Your task to perform on an android device: What is the news today? Image 0: 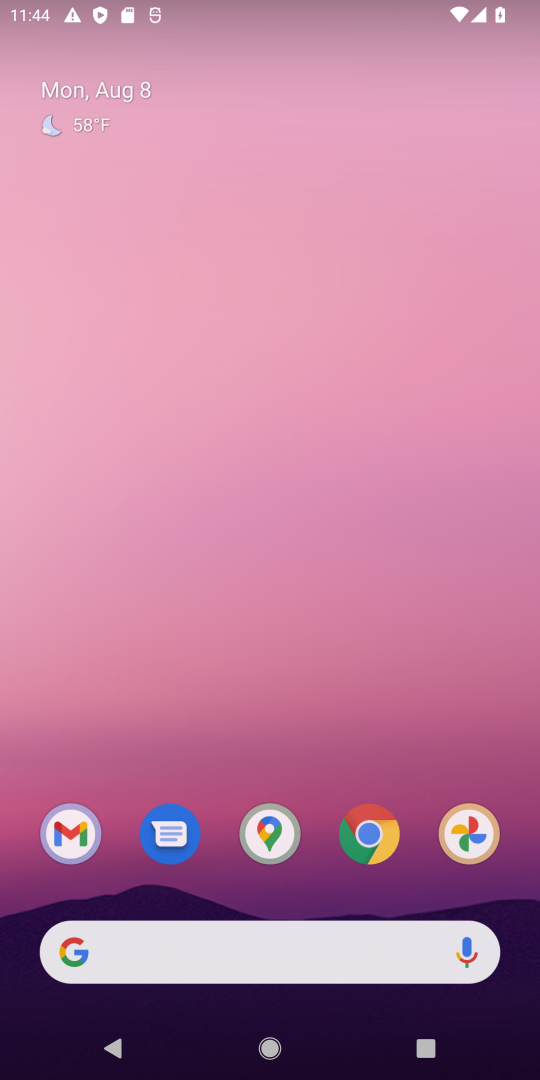
Step 0: press home button
Your task to perform on an android device: What is the news today? Image 1: 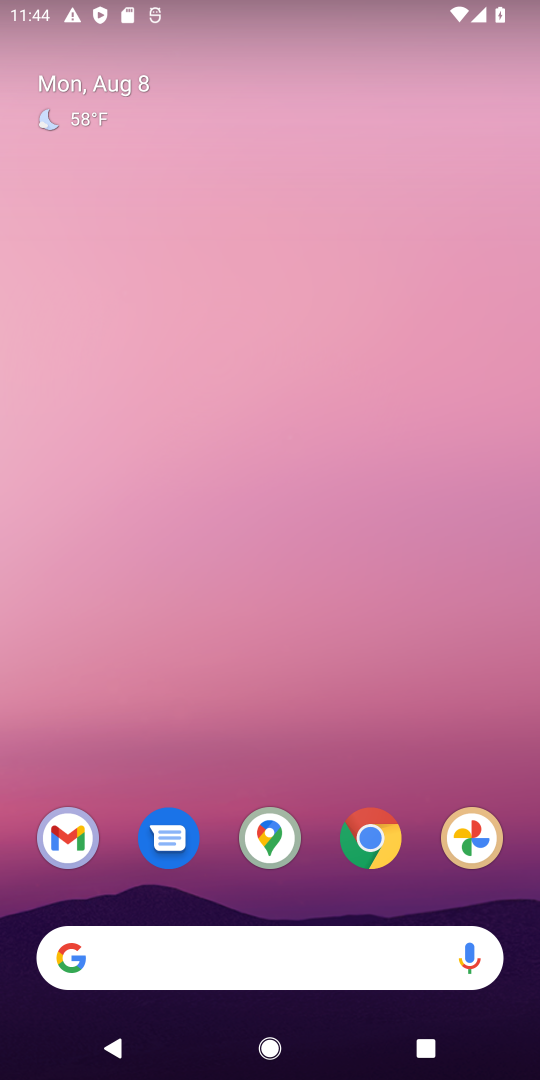
Step 1: click (64, 948)
Your task to perform on an android device: What is the news today? Image 2: 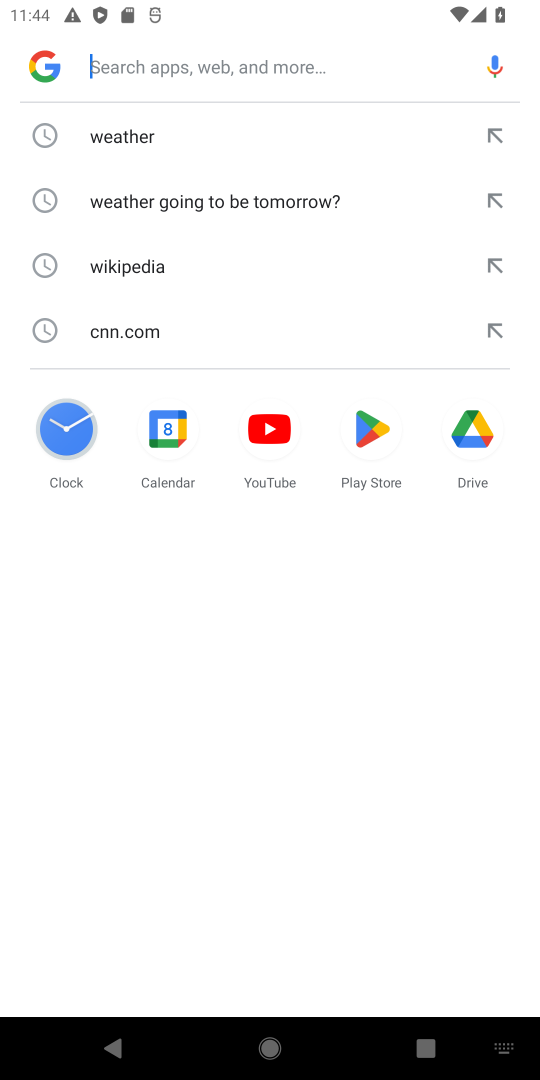
Step 2: type "news today?"
Your task to perform on an android device: What is the news today? Image 3: 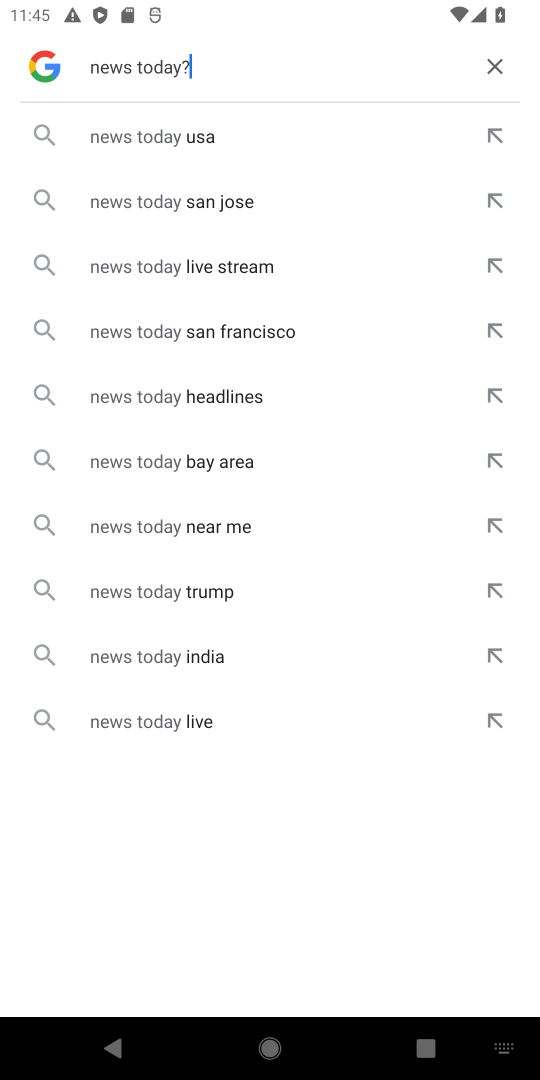
Step 3: press enter
Your task to perform on an android device: What is the news today? Image 4: 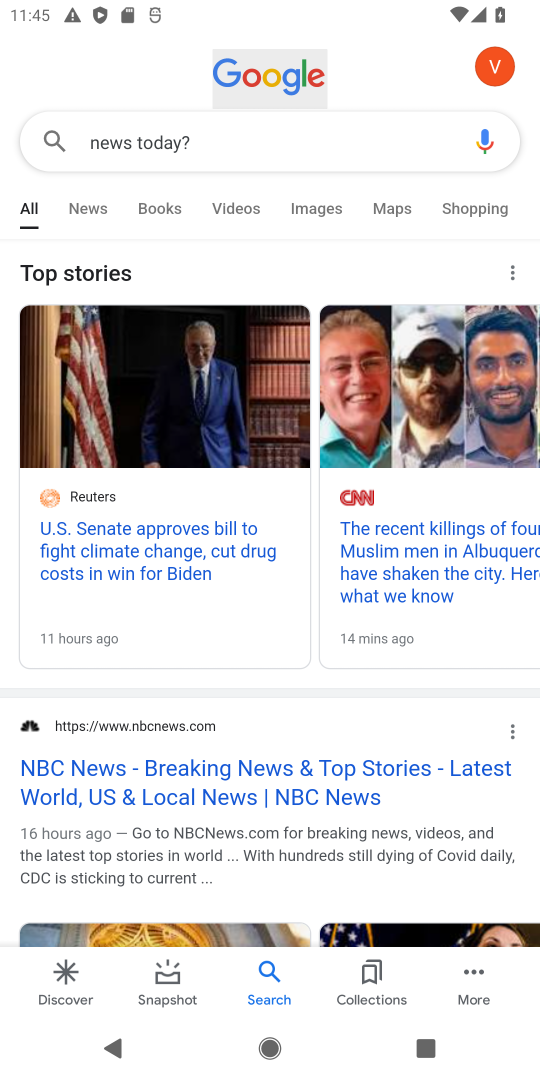
Step 4: task complete